Your task to perform on an android device: Open Maps and search for coffee Image 0: 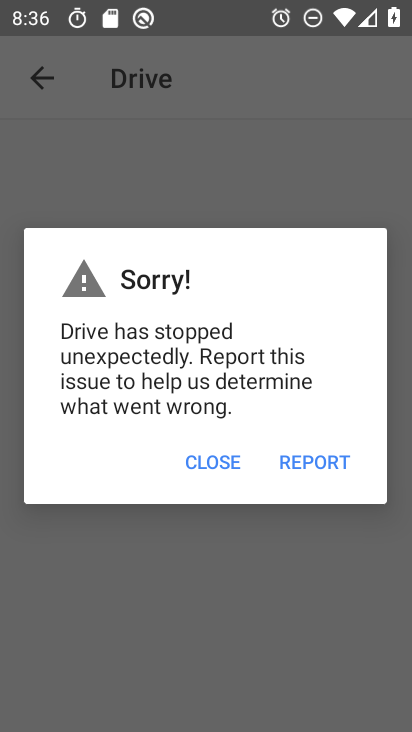
Step 0: click (192, 464)
Your task to perform on an android device: Open Maps and search for coffee Image 1: 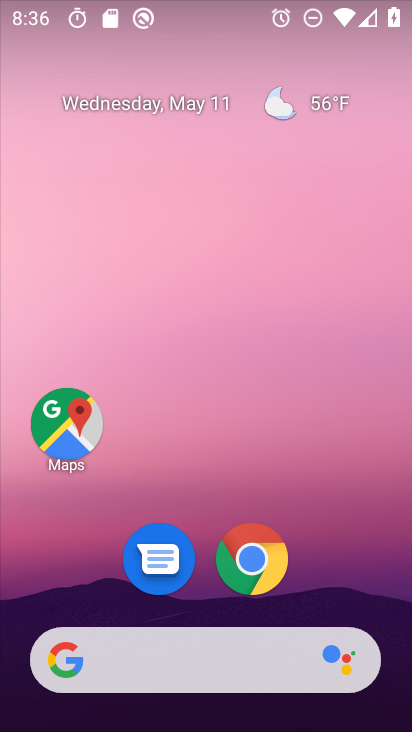
Step 1: click (56, 403)
Your task to perform on an android device: Open Maps and search for coffee Image 2: 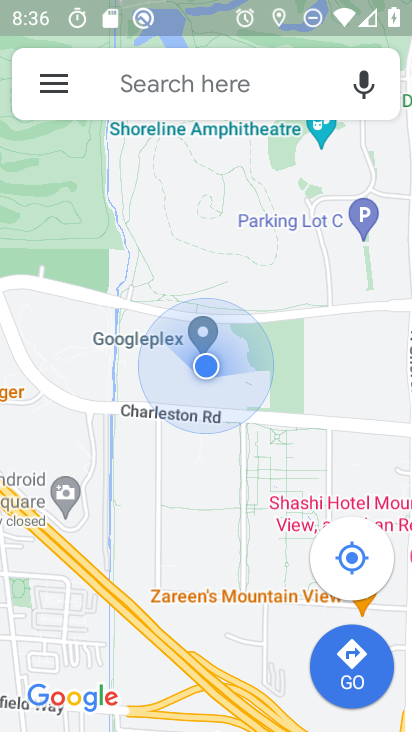
Step 2: click (139, 71)
Your task to perform on an android device: Open Maps and search for coffee Image 3: 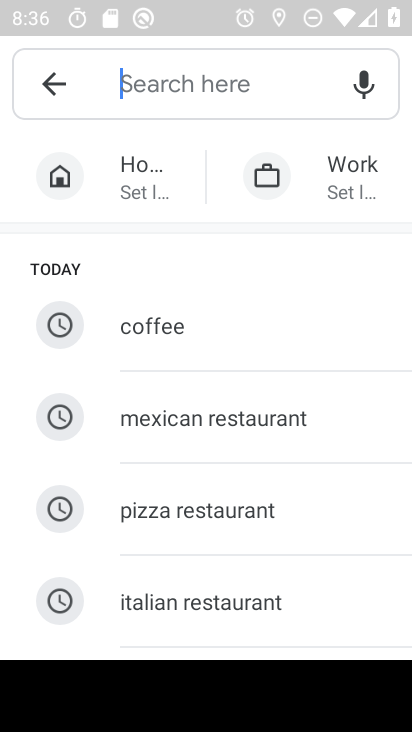
Step 3: click (165, 326)
Your task to perform on an android device: Open Maps and search for coffee Image 4: 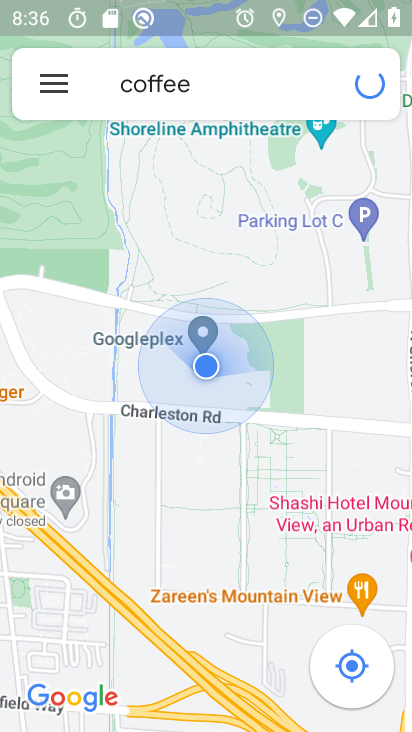
Step 4: task complete